Your task to perform on an android device: Check the weather Image 0: 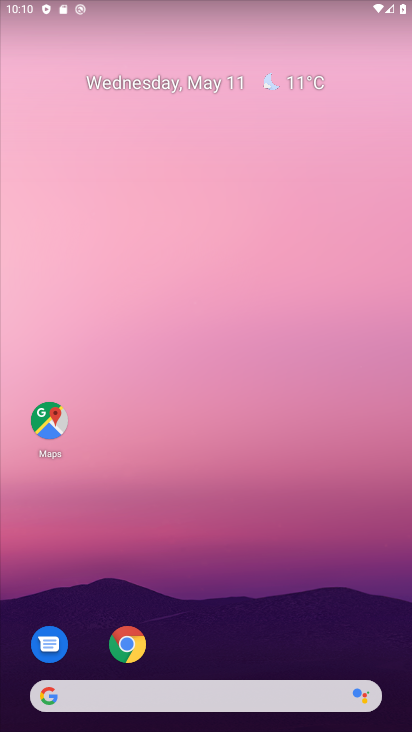
Step 0: click (303, 74)
Your task to perform on an android device: Check the weather Image 1: 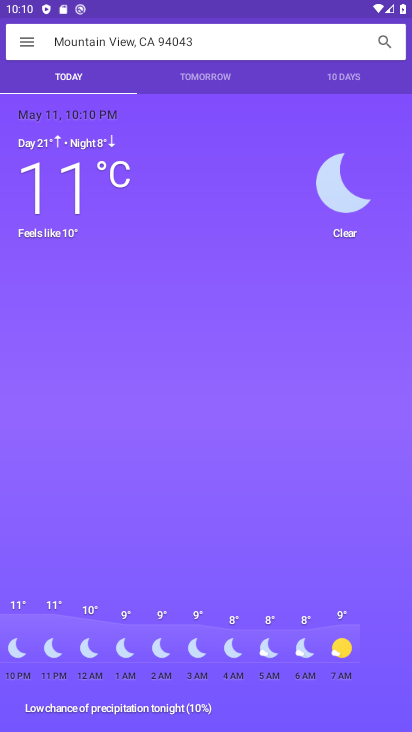
Step 1: task complete